Your task to perform on an android device: turn on javascript in the chrome app Image 0: 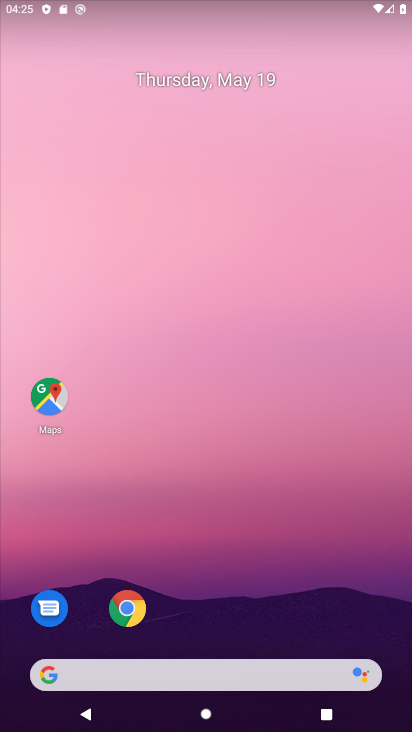
Step 0: click (126, 607)
Your task to perform on an android device: turn on javascript in the chrome app Image 1: 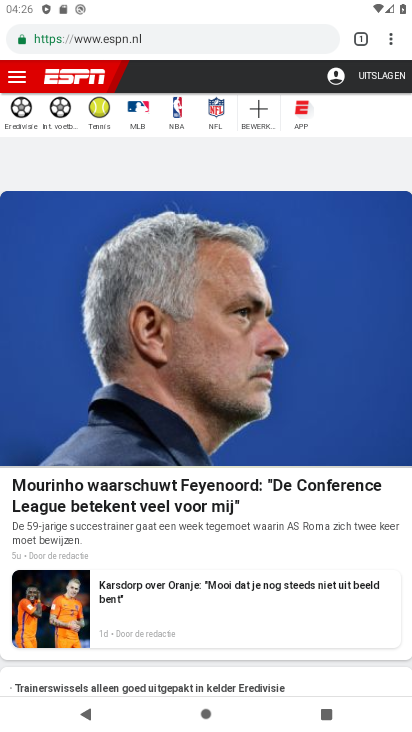
Step 1: click (391, 37)
Your task to perform on an android device: turn on javascript in the chrome app Image 2: 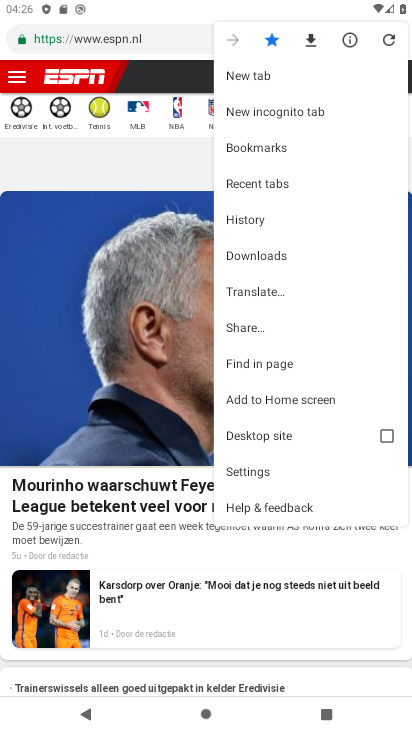
Step 2: click (246, 474)
Your task to perform on an android device: turn on javascript in the chrome app Image 3: 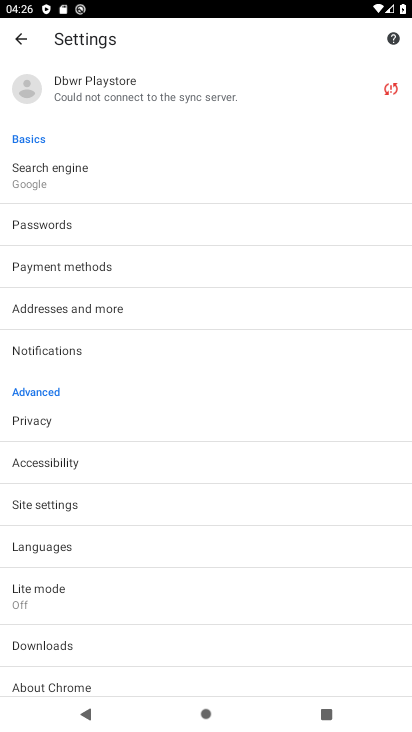
Step 3: click (51, 504)
Your task to perform on an android device: turn on javascript in the chrome app Image 4: 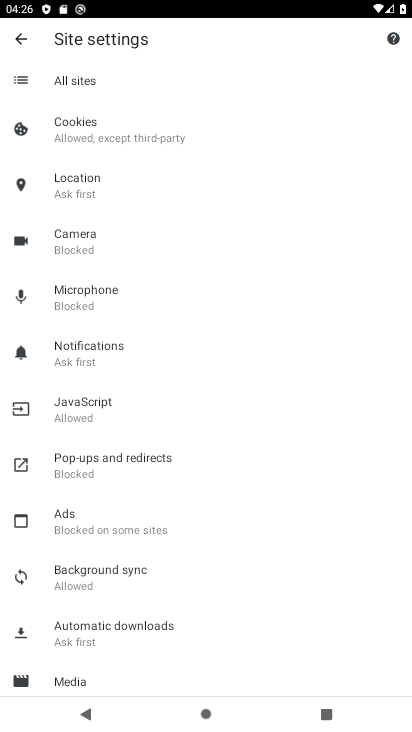
Step 4: click (94, 410)
Your task to perform on an android device: turn on javascript in the chrome app Image 5: 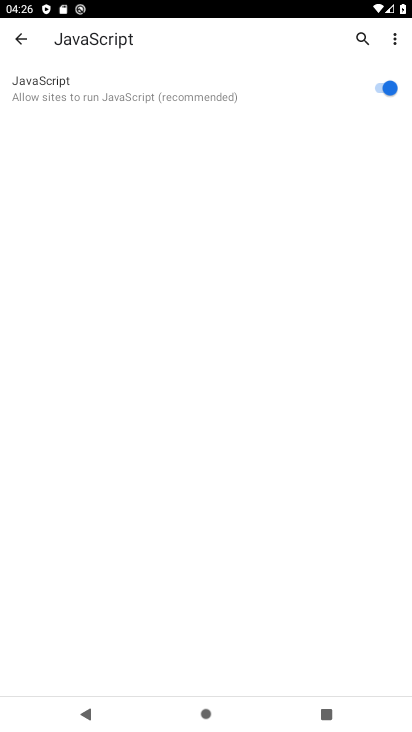
Step 5: task complete